Your task to perform on an android device: delete a single message in the gmail app Image 0: 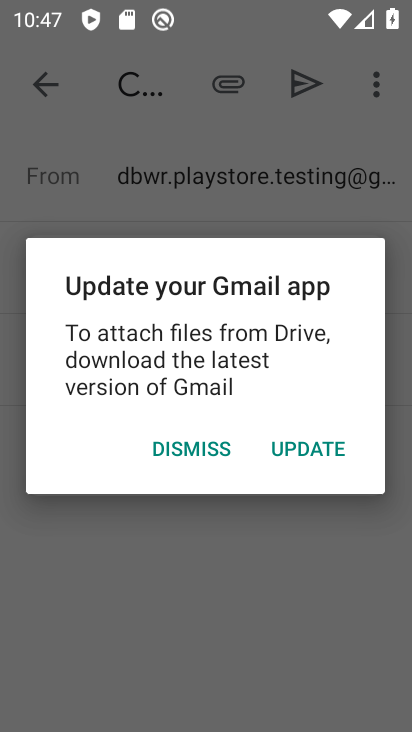
Step 0: press home button
Your task to perform on an android device: delete a single message in the gmail app Image 1: 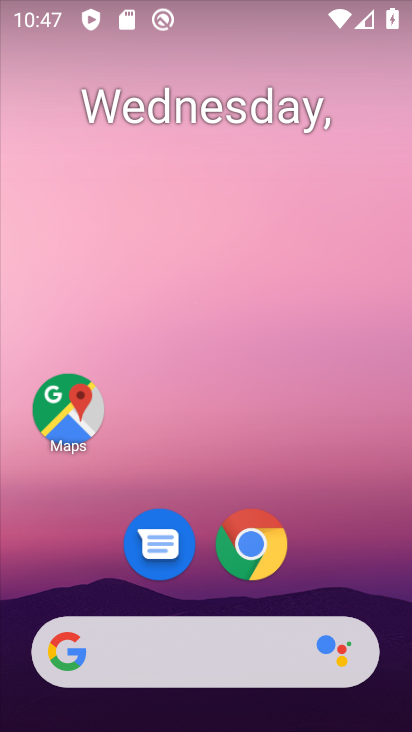
Step 1: drag from (264, 599) to (272, 100)
Your task to perform on an android device: delete a single message in the gmail app Image 2: 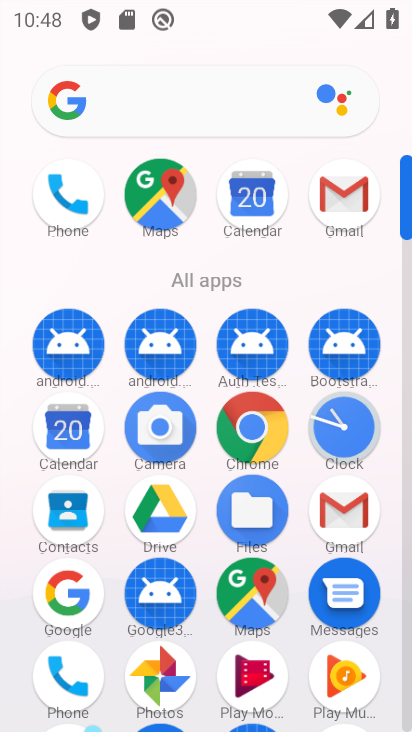
Step 2: click (349, 195)
Your task to perform on an android device: delete a single message in the gmail app Image 3: 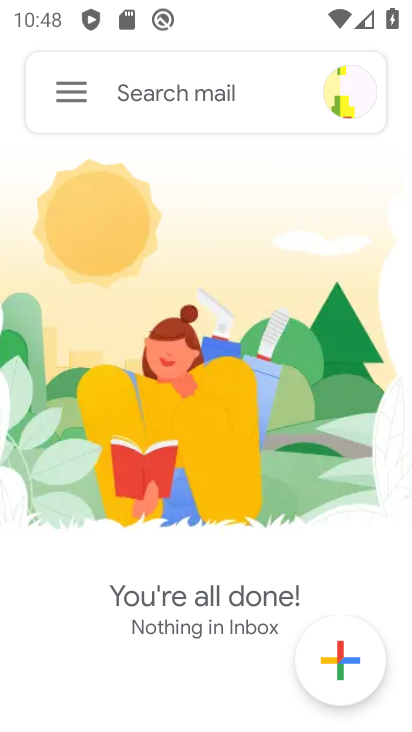
Step 3: click (87, 91)
Your task to perform on an android device: delete a single message in the gmail app Image 4: 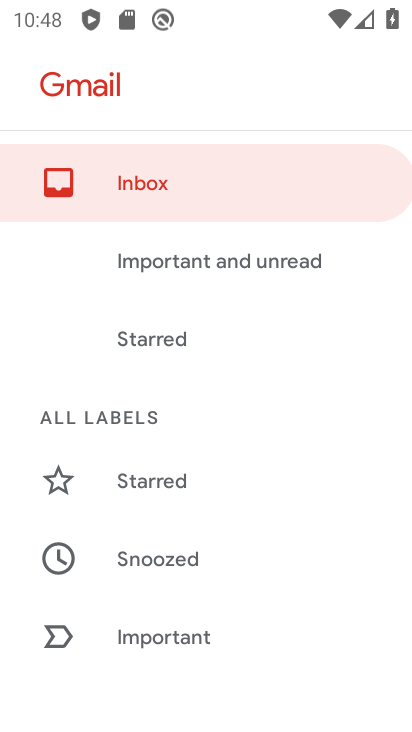
Step 4: drag from (175, 600) to (210, 106)
Your task to perform on an android device: delete a single message in the gmail app Image 5: 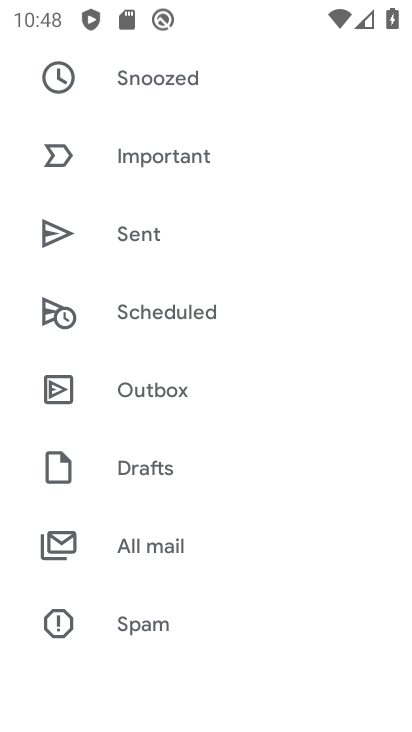
Step 5: drag from (228, 495) to (231, 186)
Your task to perform on an android device: delete a single message in the gmail app Image 6: 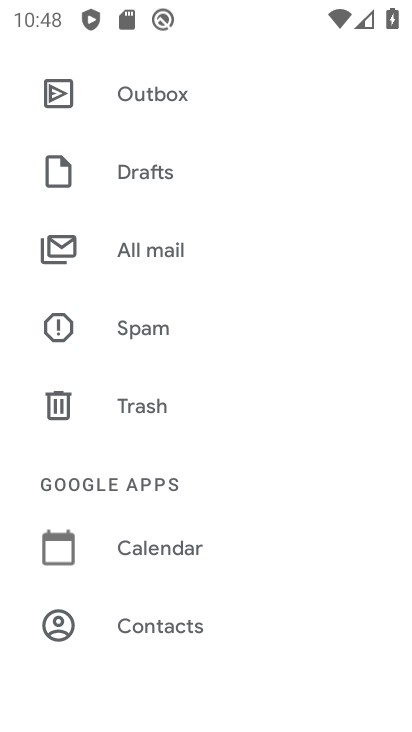
Step 6: click (186, 246)
Your task to perform on an android device: delete a single message in the gmail app Image 7: 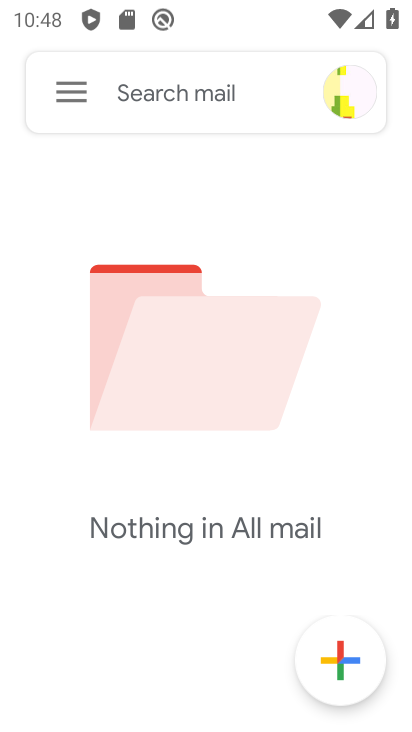
Step 7: task complete